Your task to perform on an android device: turn on improve location accuracy Image 0: 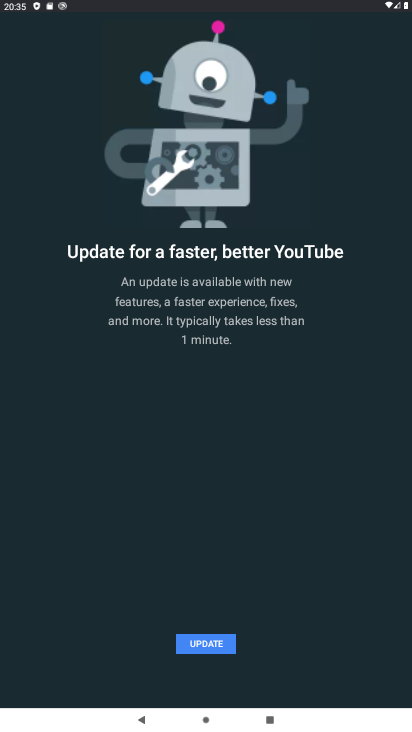
Step 0: press home button
Your task to perform on an android device: turn on improve location accuracy Image 1: 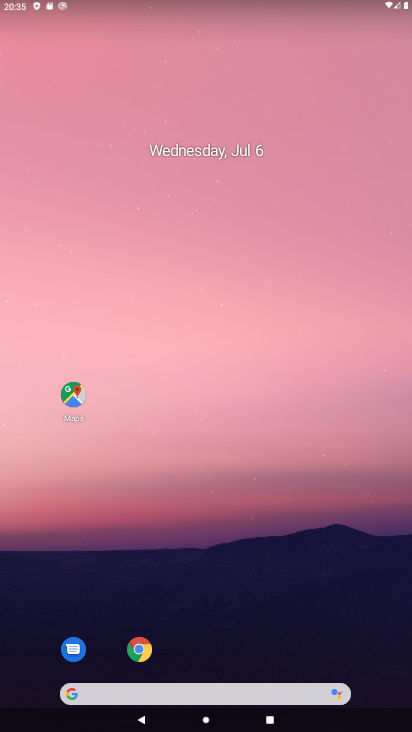
Step 1: click (67, 397)
Your task to perform on an android device: turn on improve location accuracy Image 2: 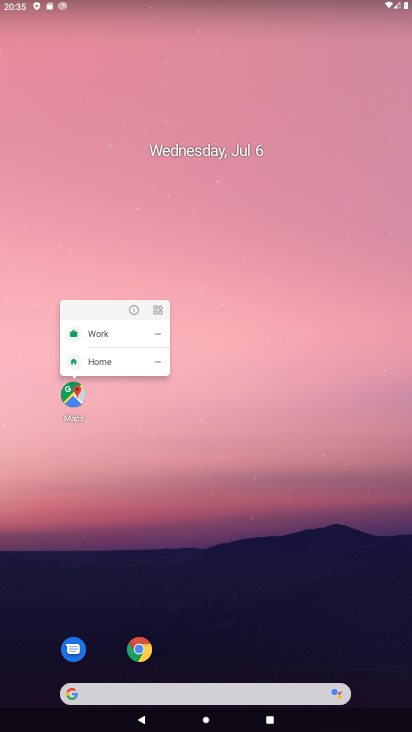
Step 2: click (76, 397)
Your task to perform on an android device: turn on improve location accuracy Image 3: 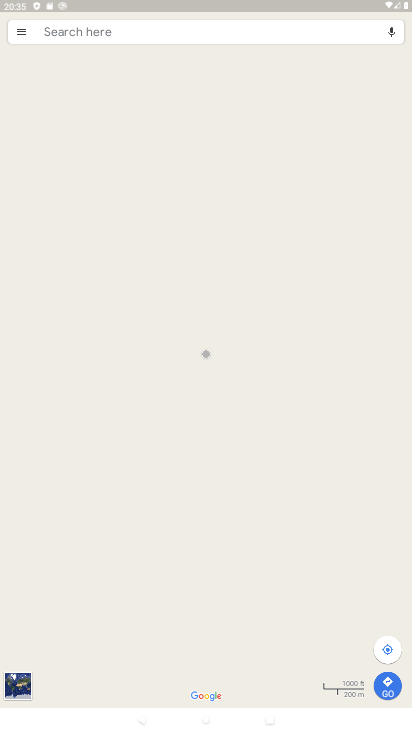
Step 3: press home button
Your task to perform on an android device: turn on improve location accuracy Image 4: 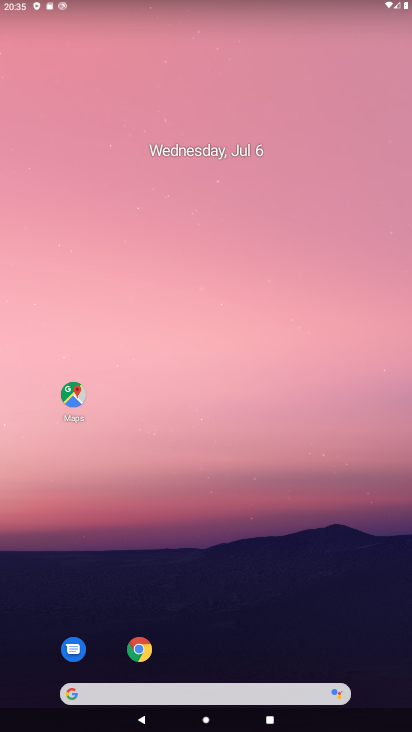
Step 4: drag from (187, 689) to (284, 144)
Your task to perform on an android device: turn on improve location accuracy Image 5: 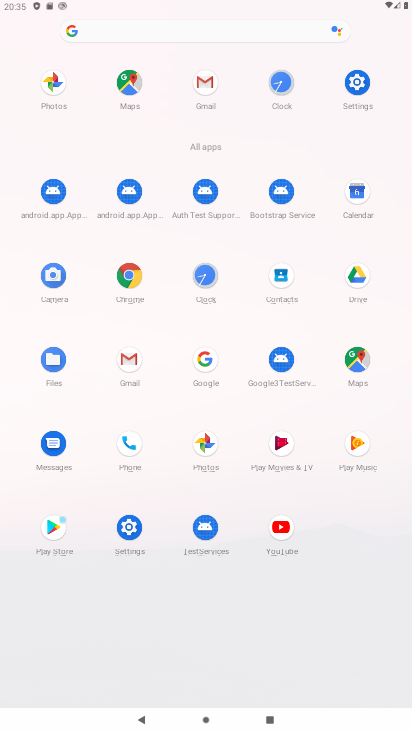
Step 5: click (360, 83)
Your task to perform on an android device: turn on improve location accuracy Image 6: 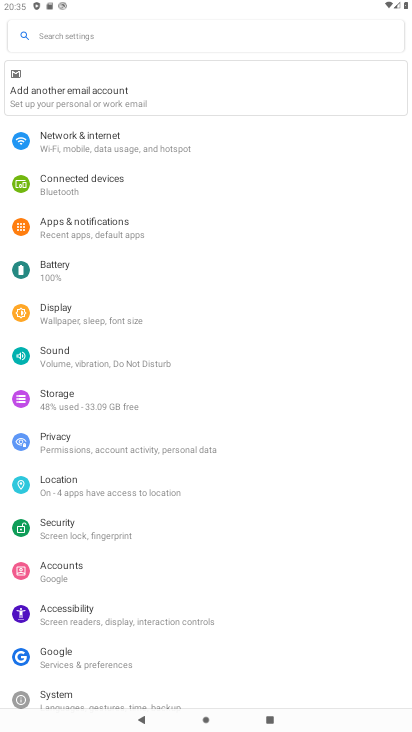
Step 6: click (74, 487)
Your task to perform on an android device: turn on improve location accuracy Image 7: 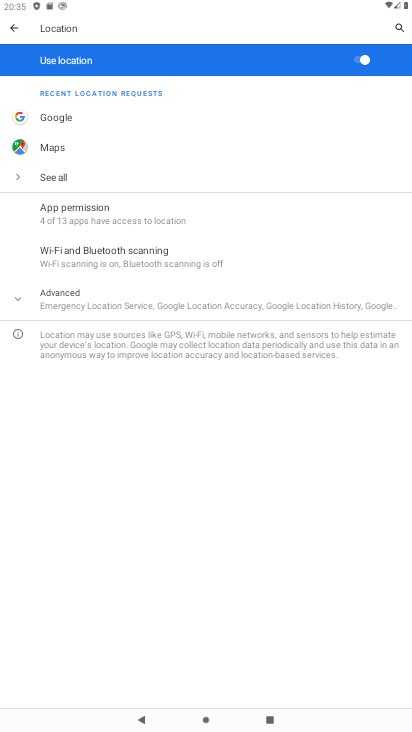
Step 7: click (64, 292)
Your task to perform on an android device: turn on improve location accuracy Image 8: 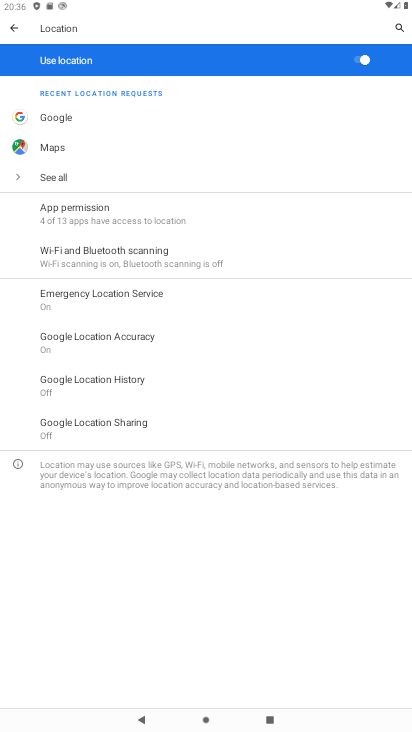
Step 8: click (94, 339)
Your task to perform on an android device: turn on improve location accuracy Image 9: 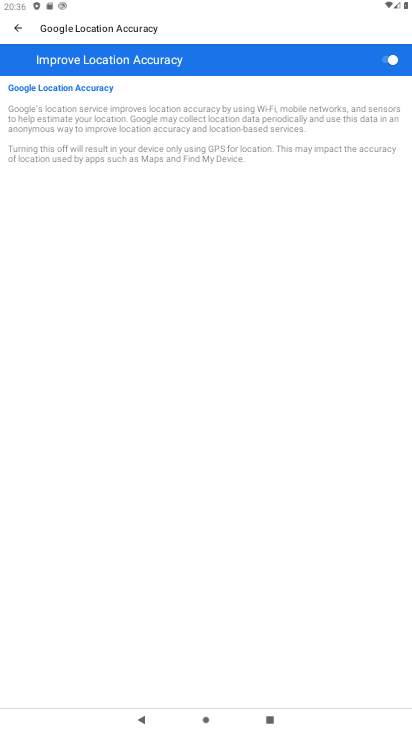
Step 9: task complete